Your task to perform on an android device: Add asus zenbook to the cart on costco Image 0: 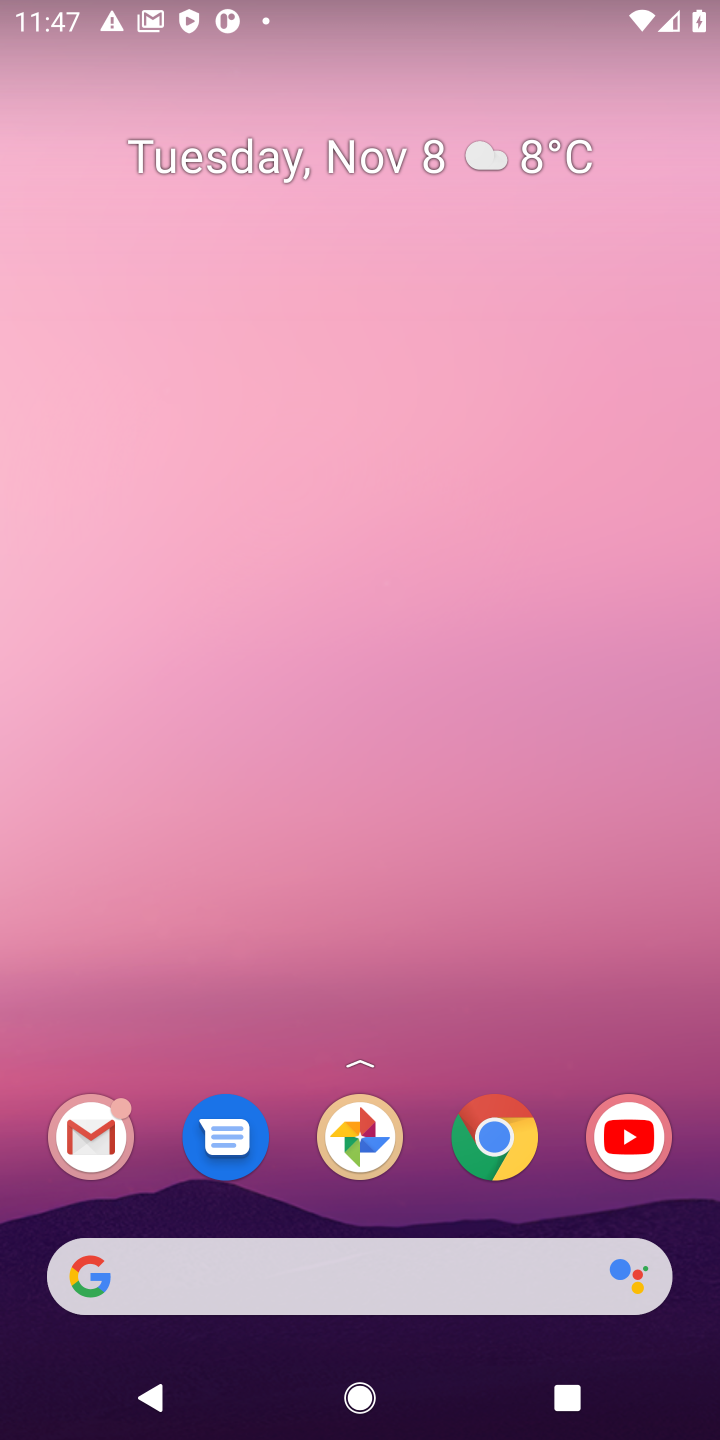
Step 0: click (495, 1136)
Your task to perform on an android device: Add asus zenbook to the cart on costco Image 1: 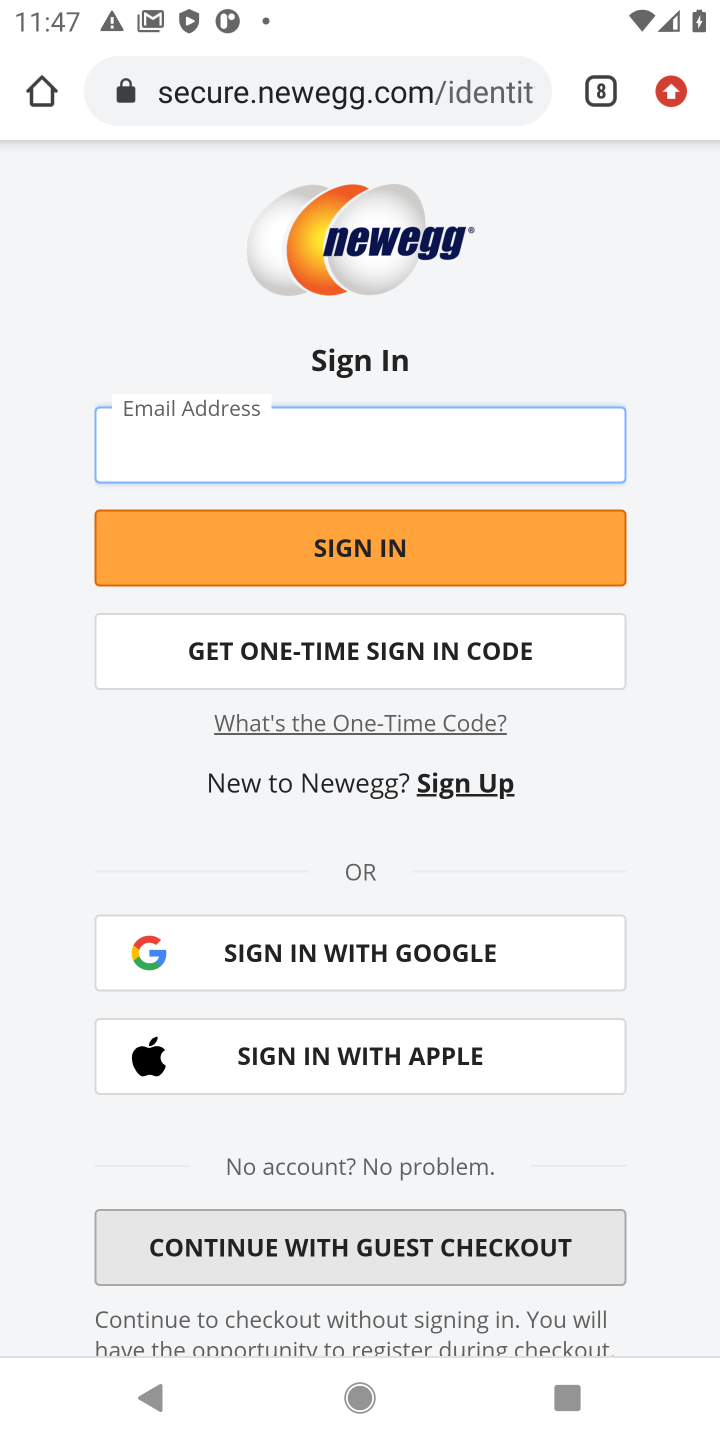
Step 1: click (594, 96)
Your task to perform on an android device: Add asus zenbook to the cart on costco Image 2: 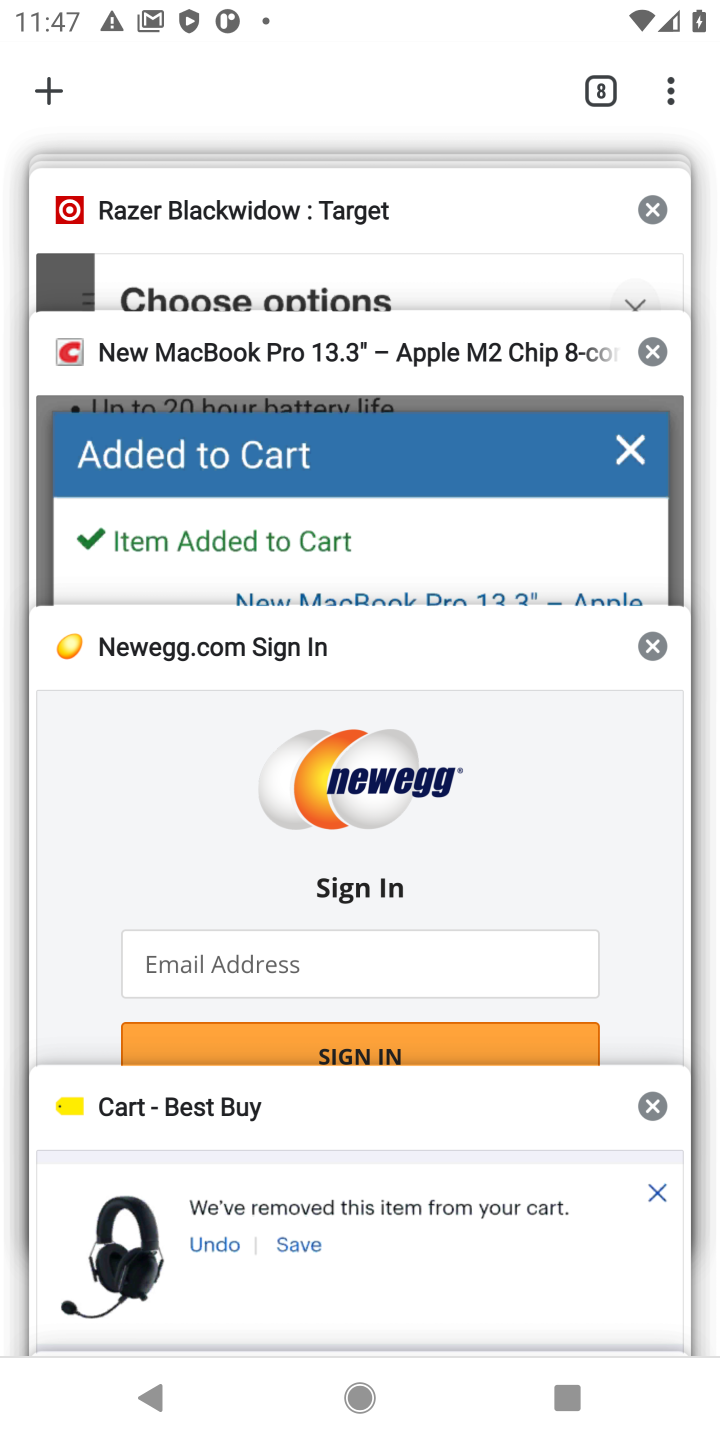
Step 2: click (339, 399)
Your task to perform on an android device: Add asus zenbook to the cart on costco Image 3: 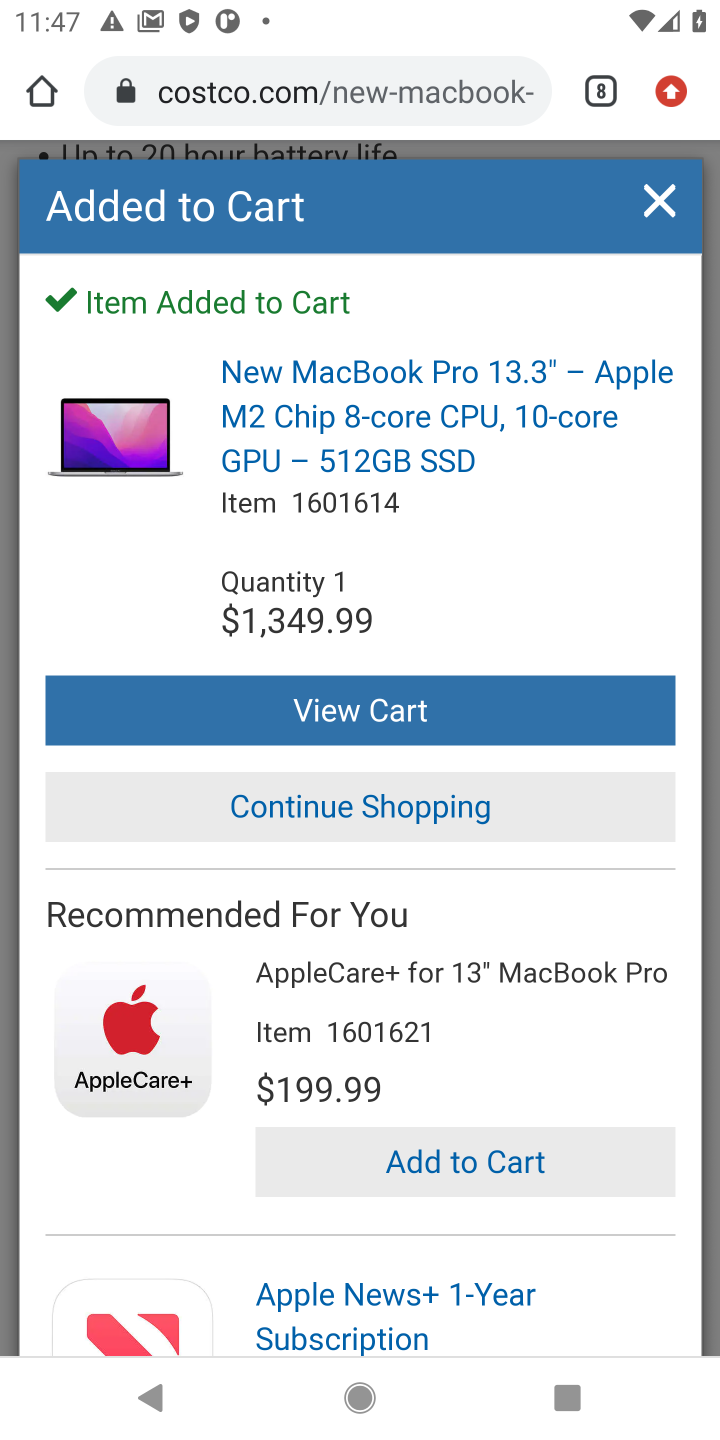
Step 3: click (656, 214)
Your task to perform on an android device: Add asus zenbook to the cart on costco Image 4: 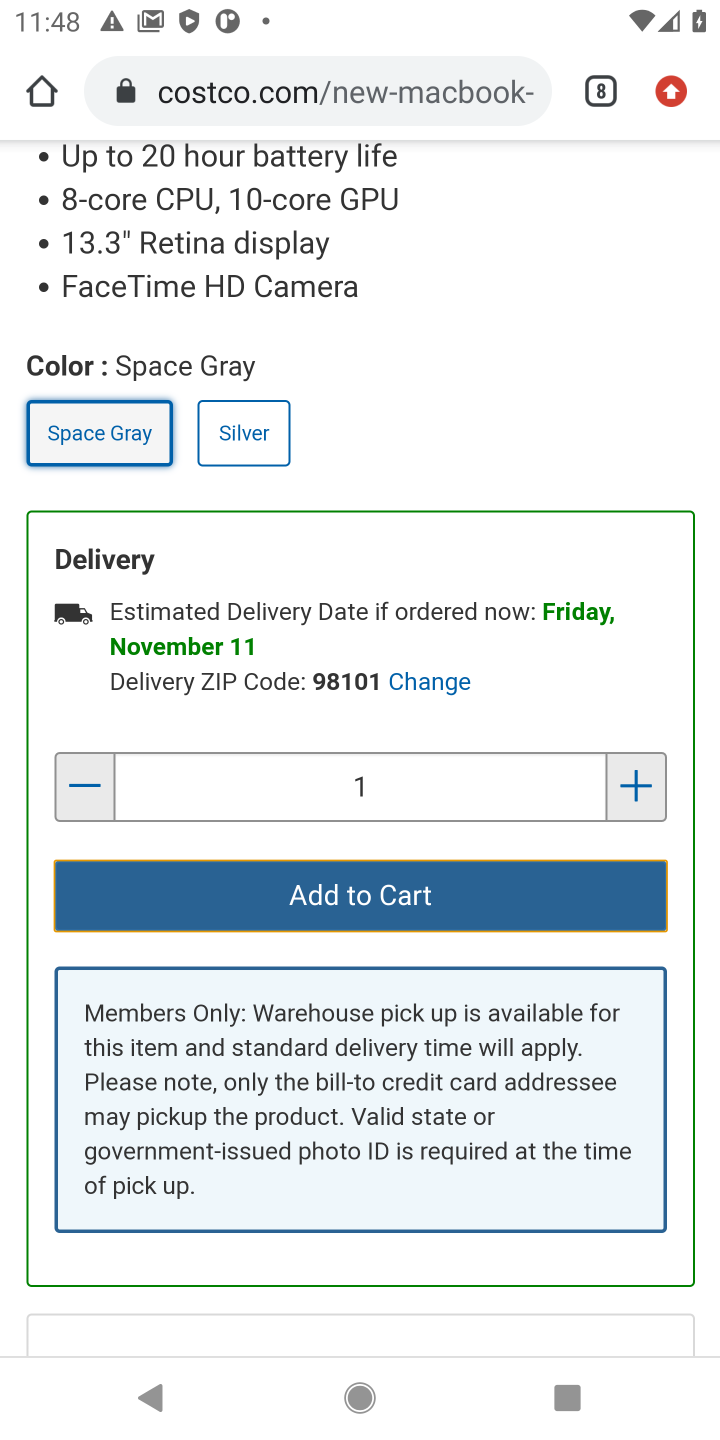
Step 4: drag from (614, 344) to (456, 768)
Your task to perform on an android device: Add asus zenbook to the cart on costco Image 5: 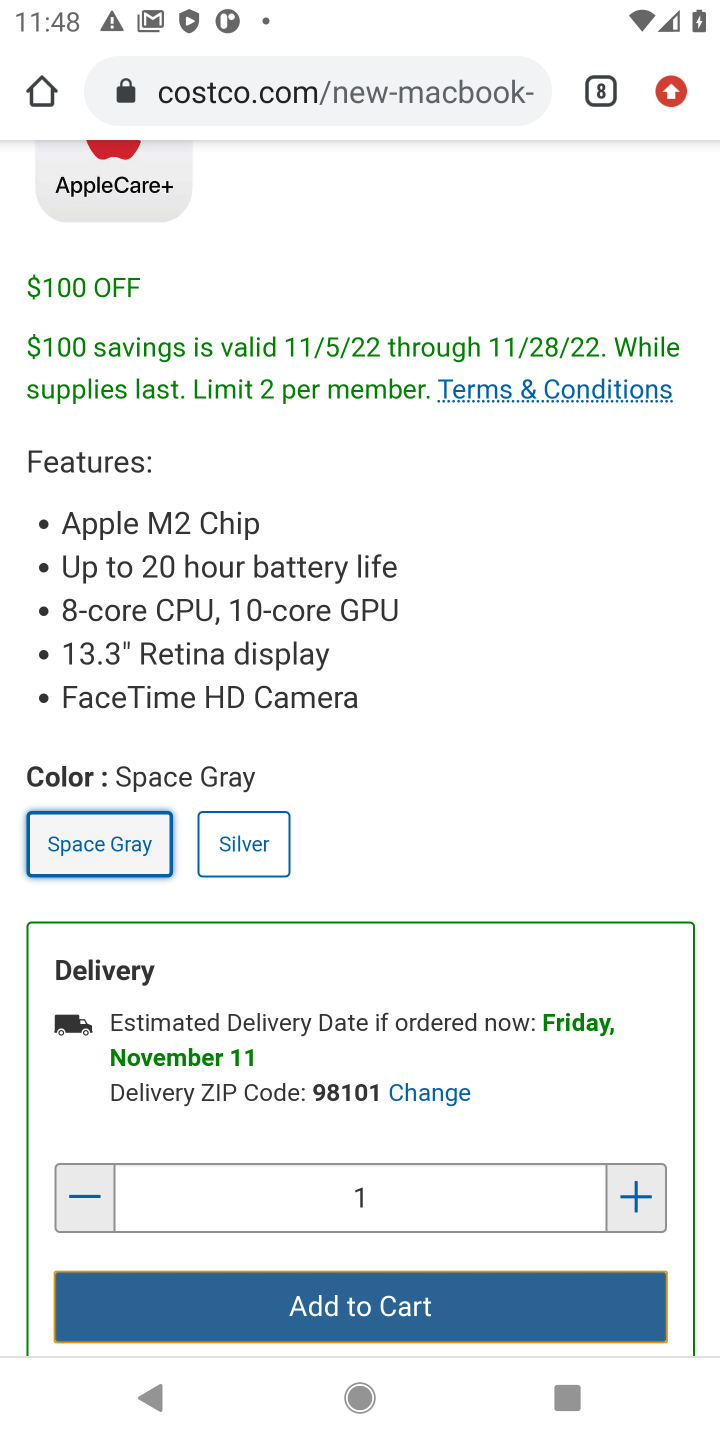
Step 5: drag from (519, 264) to (428, 728)
Your task to perform on an android device: Add asus zenbook to the cart on costco Image 6: 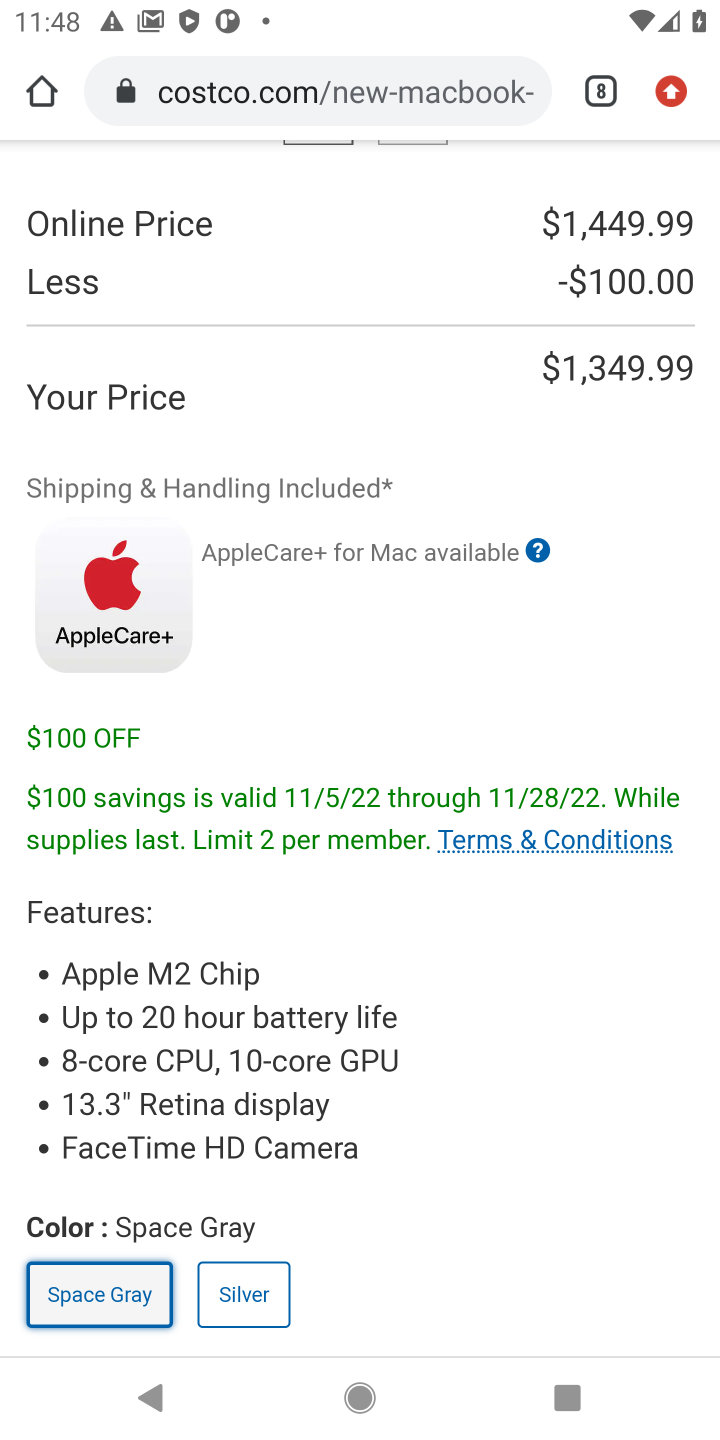
Step 6: drag from (375, 337) to (212, 1037)
Your task to perform on an android device: Add asus zenbook to the cart on costco Image 7: 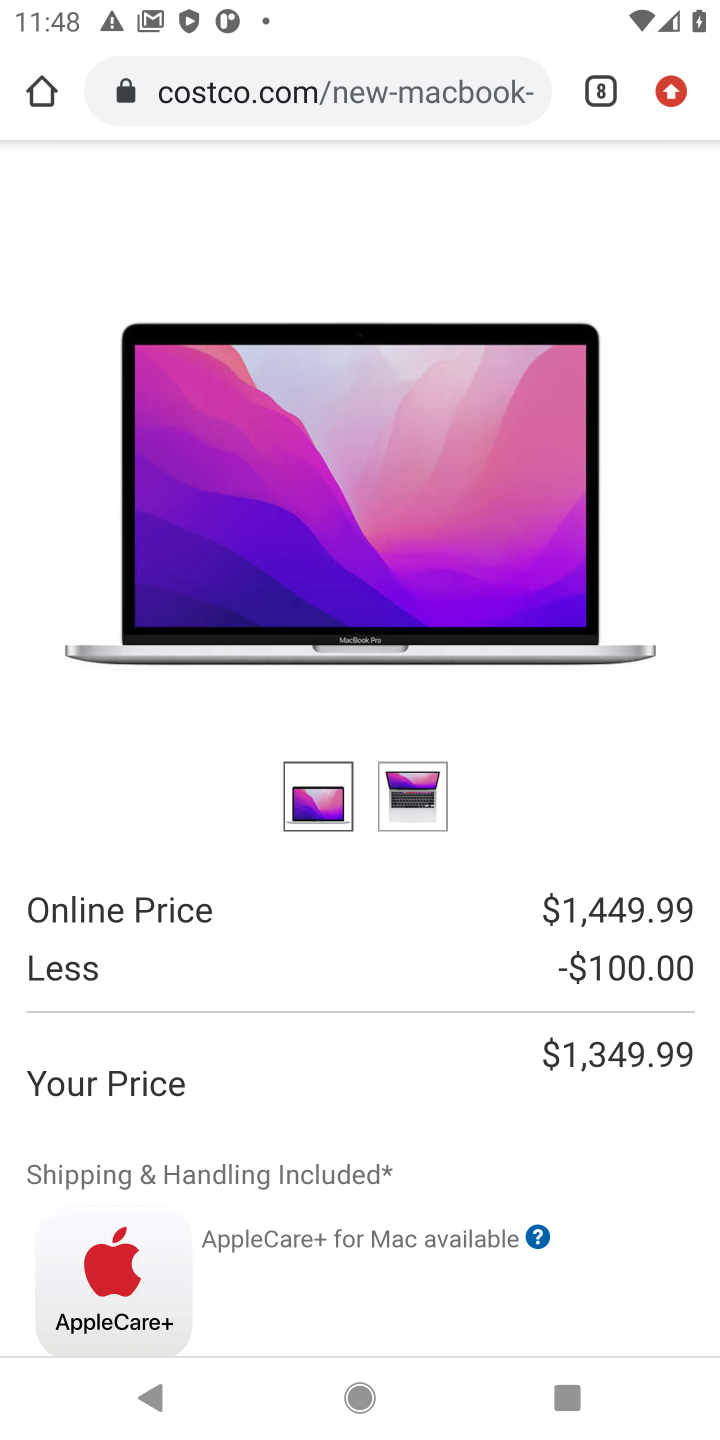
Step 7: drag from (598, 175) to (373, 727)
Your task to perform on an android device: Add asus zenbook to the cart on costco Image 8: 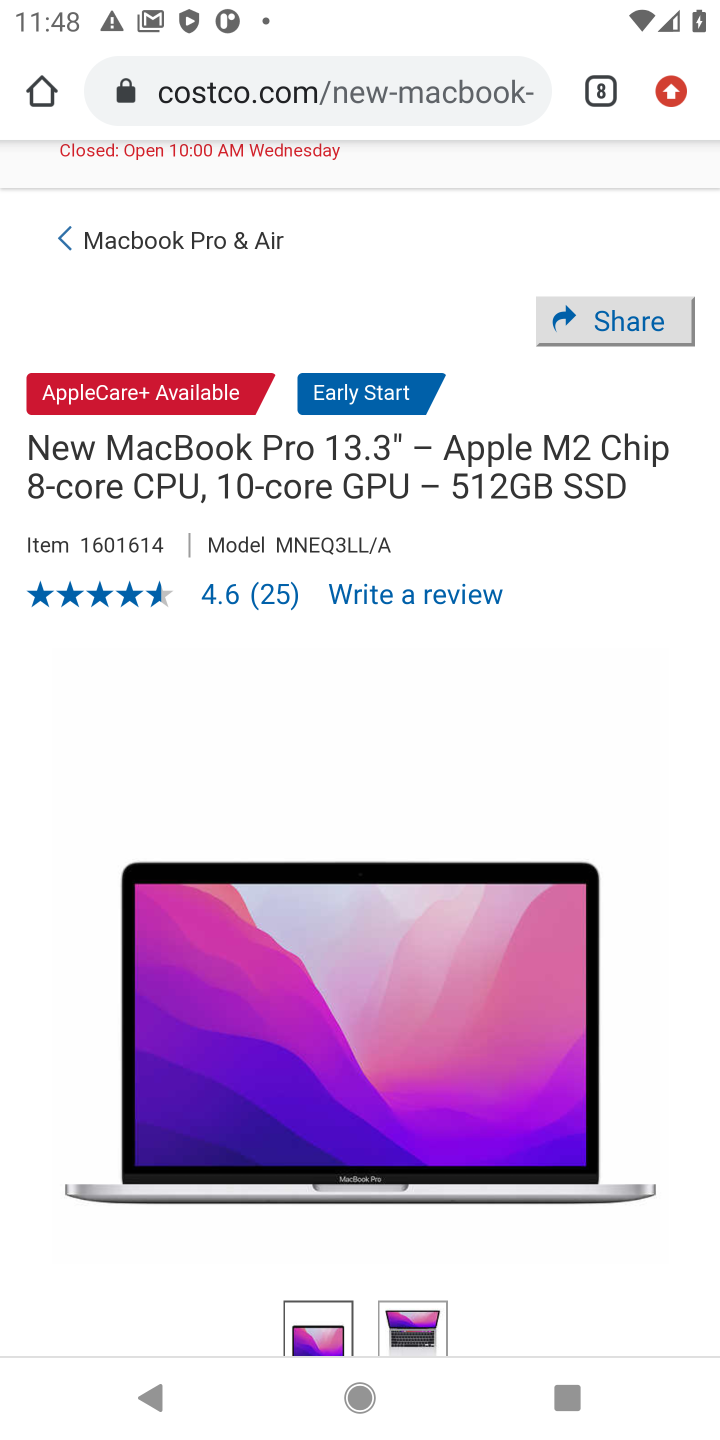
Step 8: drag from (422, 287) to (327, 843)
Your task to perform on an android device: Add asus zenbook to the cart on costco Image 9: 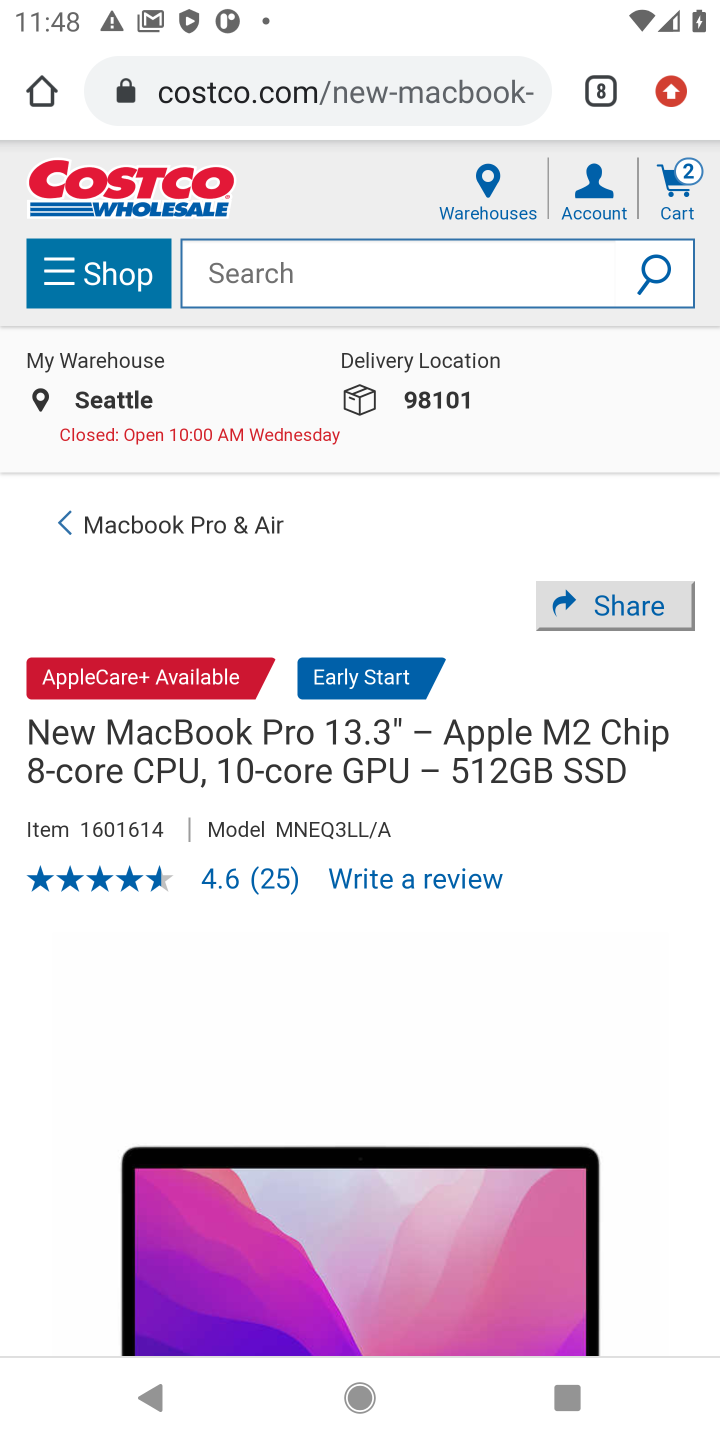
Step 9: click (314, 276)
Your task to perform on an android device: Add asus zenbook to the cart on costco Image 10: 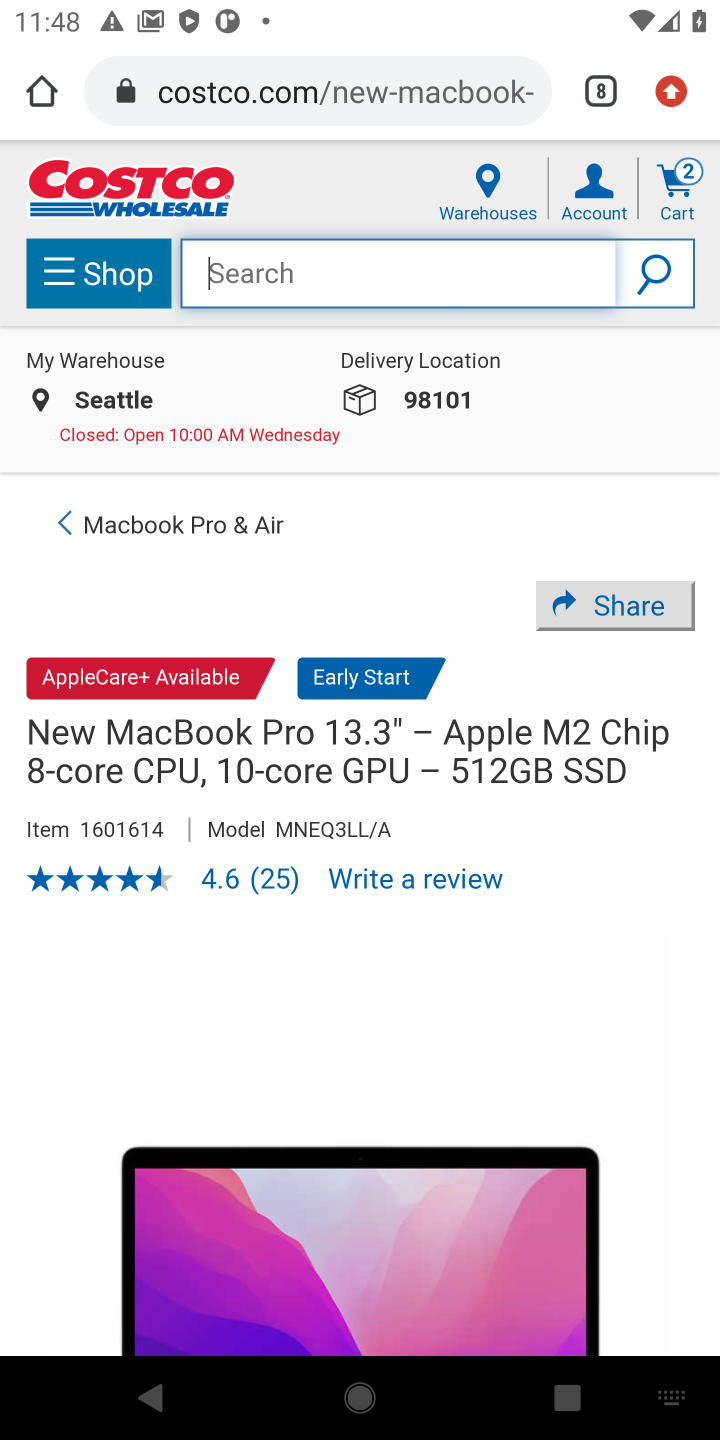
Step 10: type "asus zenbook"
Your task to perform on an android device: Add asus zenbook to the cart on costco Image 11: 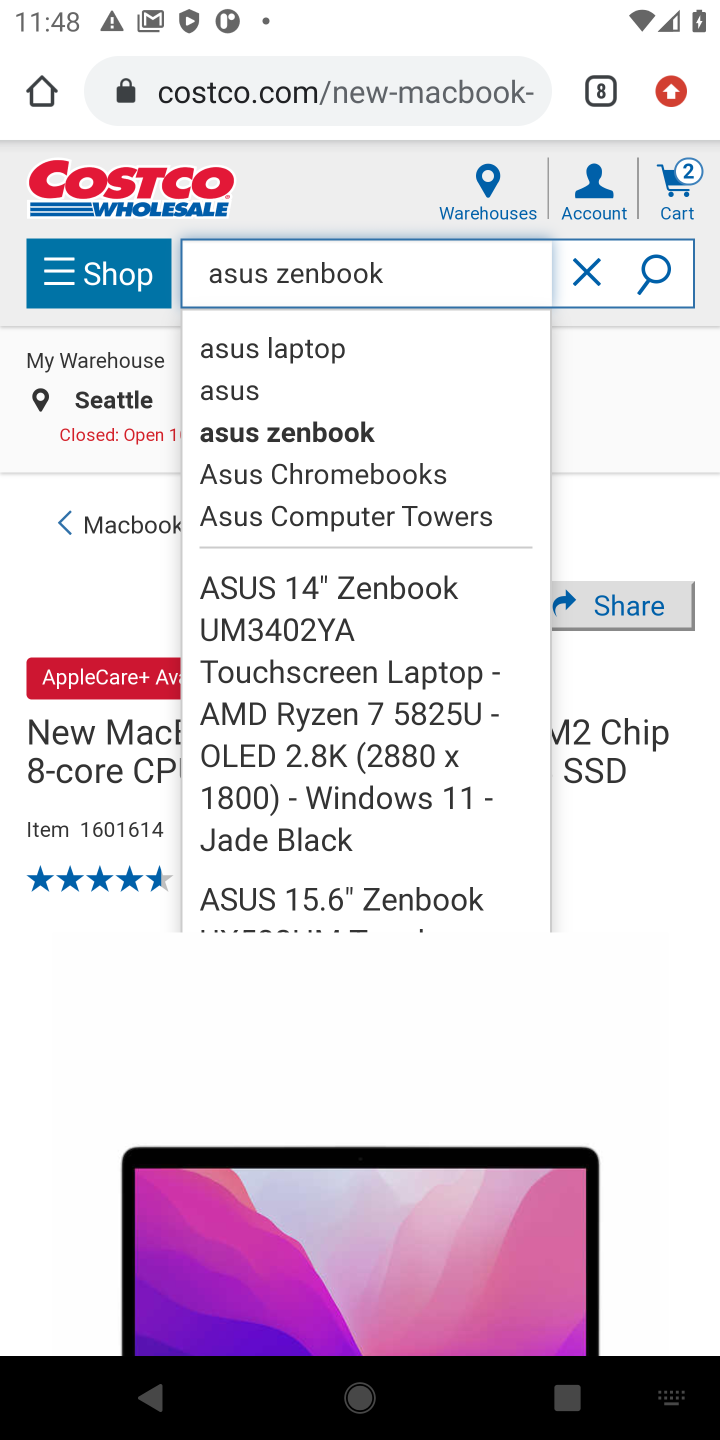
Step 11: click (331, 433)
Your task to perform on an android device: Add asus zenbook to the cart on costco Image 12: 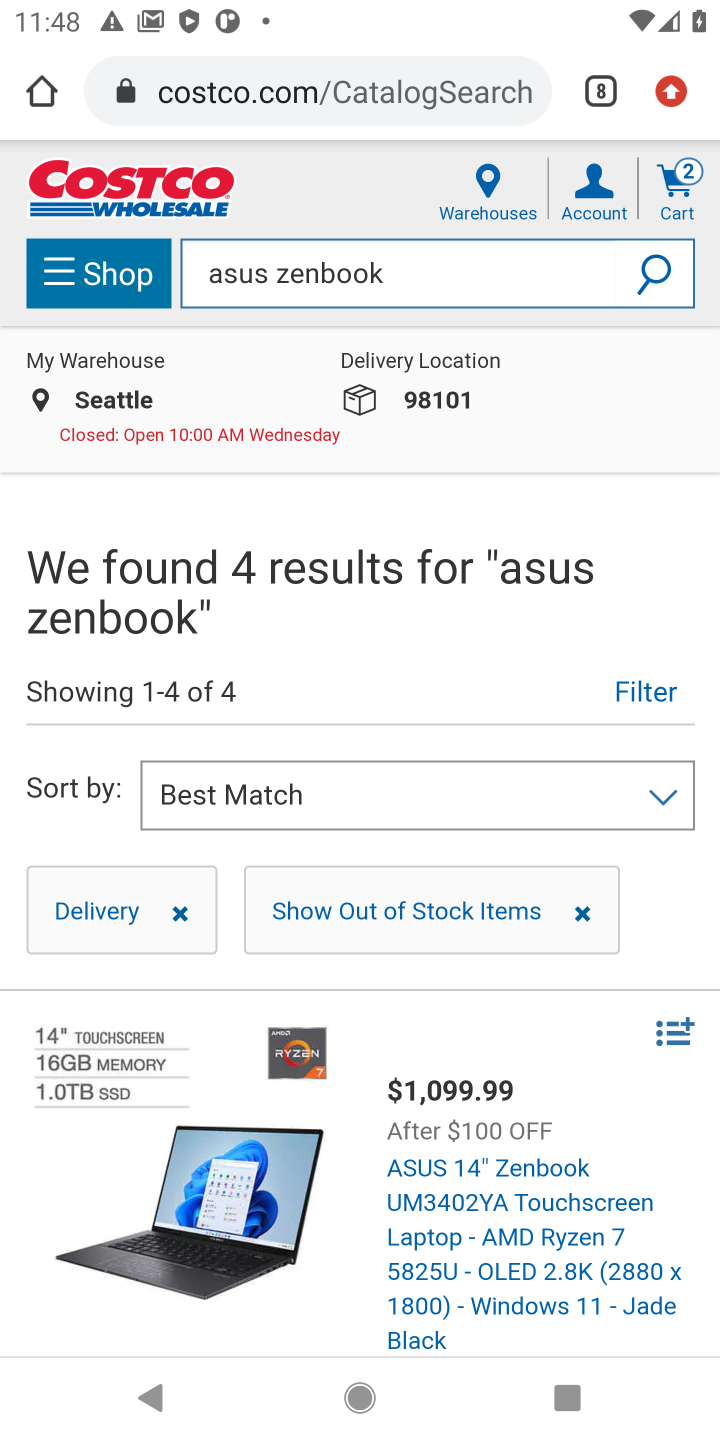
Step 12: click (541, 1225)
Your task to perform on an android device: Add asus zenbook to the cart on costco Image 13: 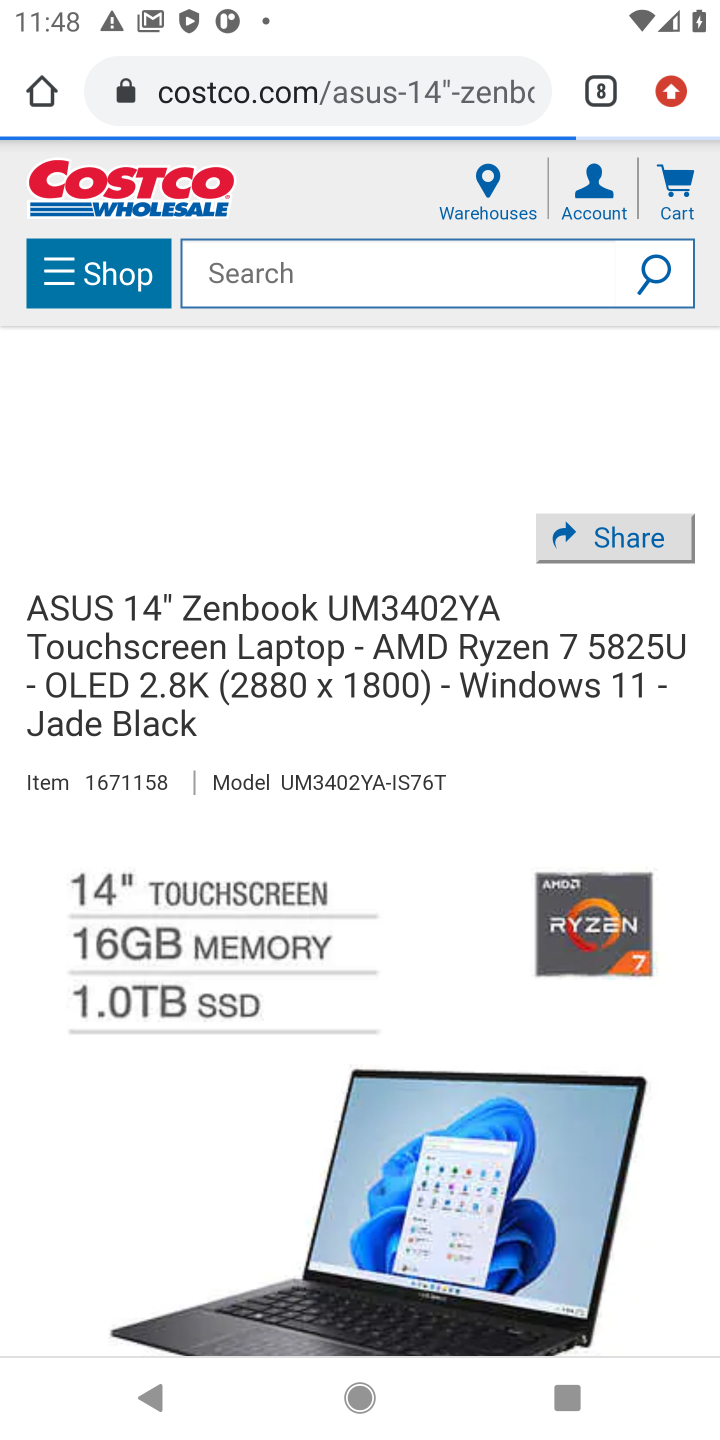
Step 13: drag from (662, 1289) to (612, 868)
Your task to perform on an android device: Add asus zenbook to the cart on costco Image 14: 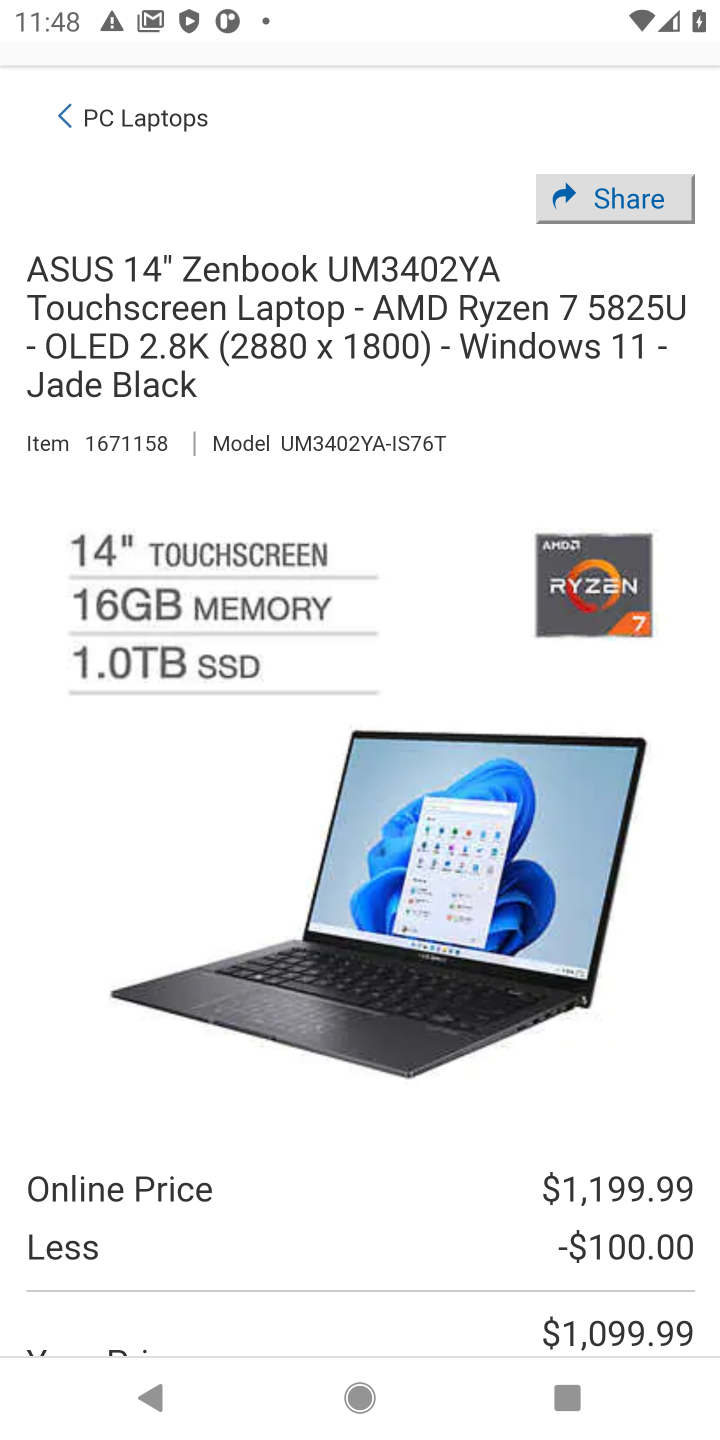
Step 14: drag from (434, 1226) to (390, 721)
Your task to perform on an android device: Add asus zenbook to the cart on costco Image 15: 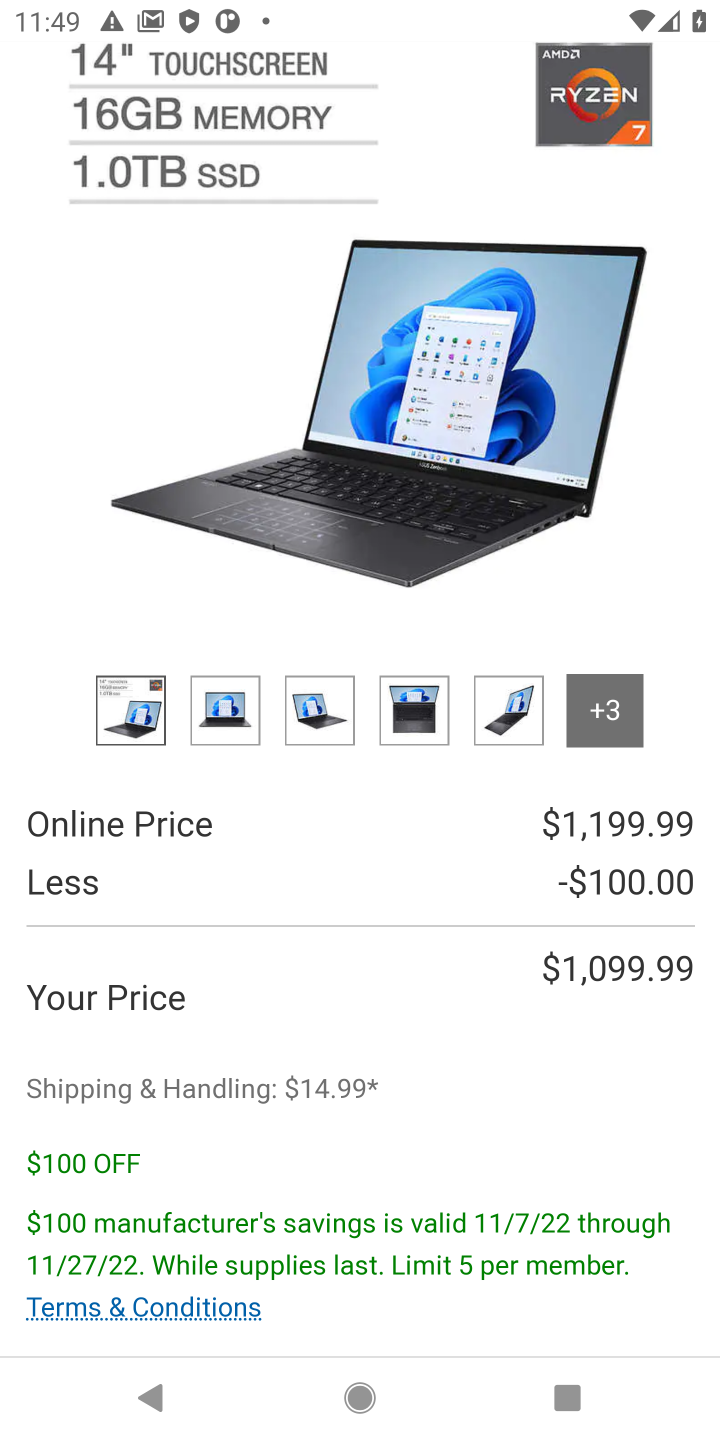
Step 15: drag from (421, 1310) to (369, 665)
Your task to perform on an android device: Add asus zenbook to the cart on costco Image 16: 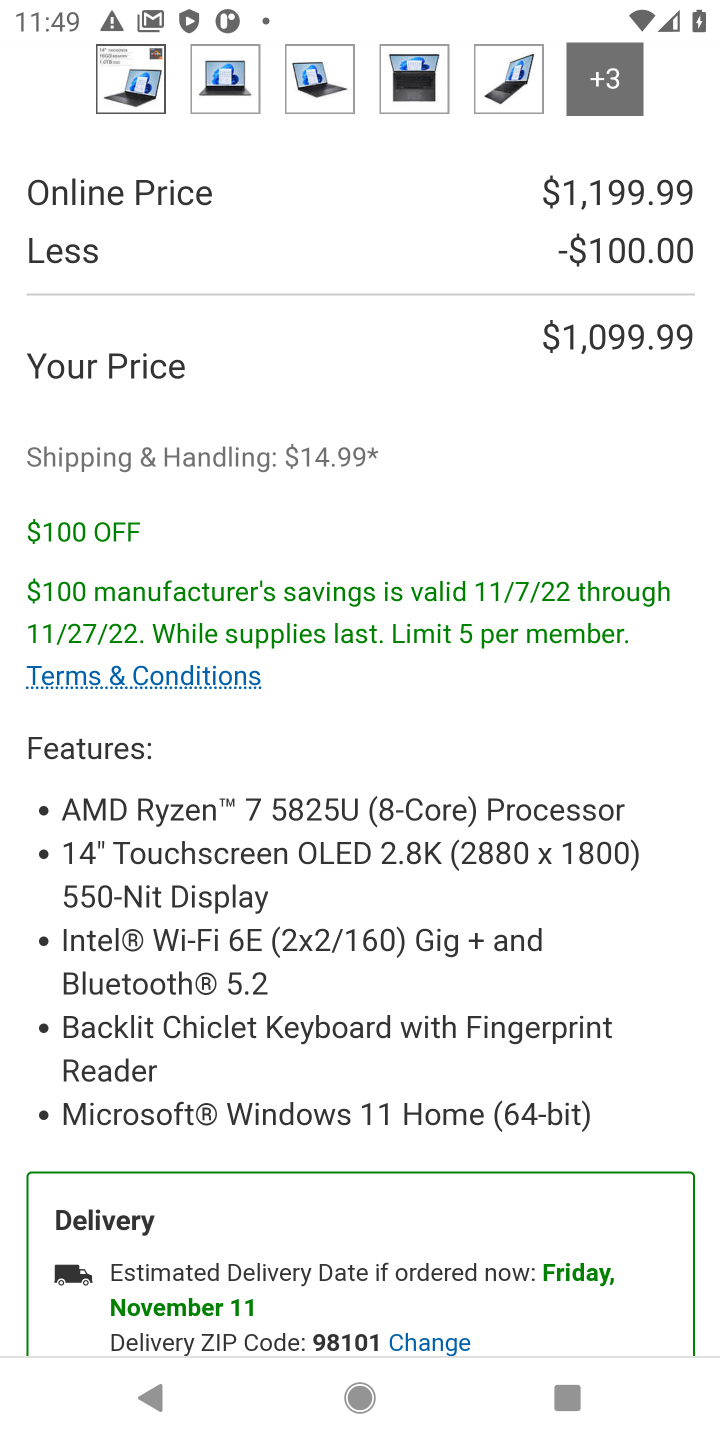
Step 16: drag from (372, 1316) to (363, 413)
Your task to perform on an android device: Add asus zenbook to the cart on costco Image 17: 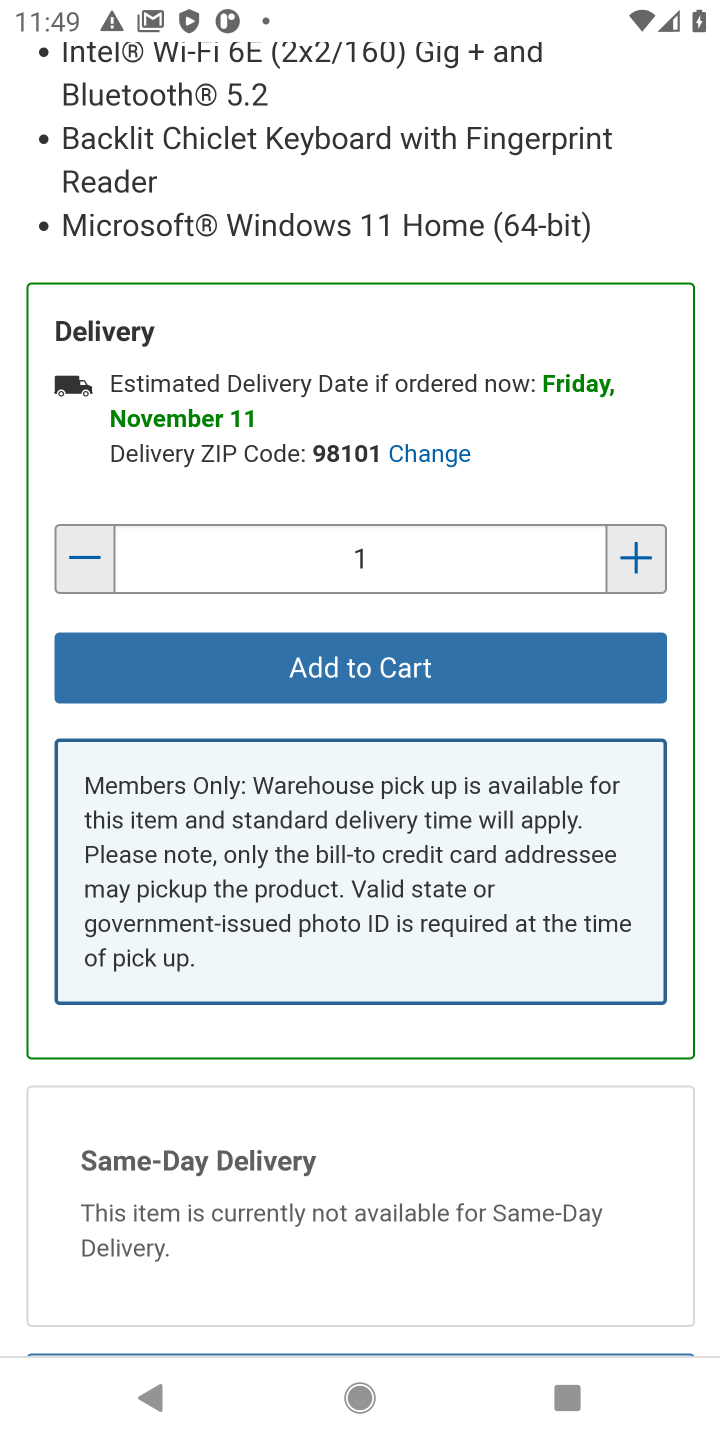
Step 17: click (360, 668)
Your task to perform on an android device: Add asus zenbook to the cart on costco Image 18: 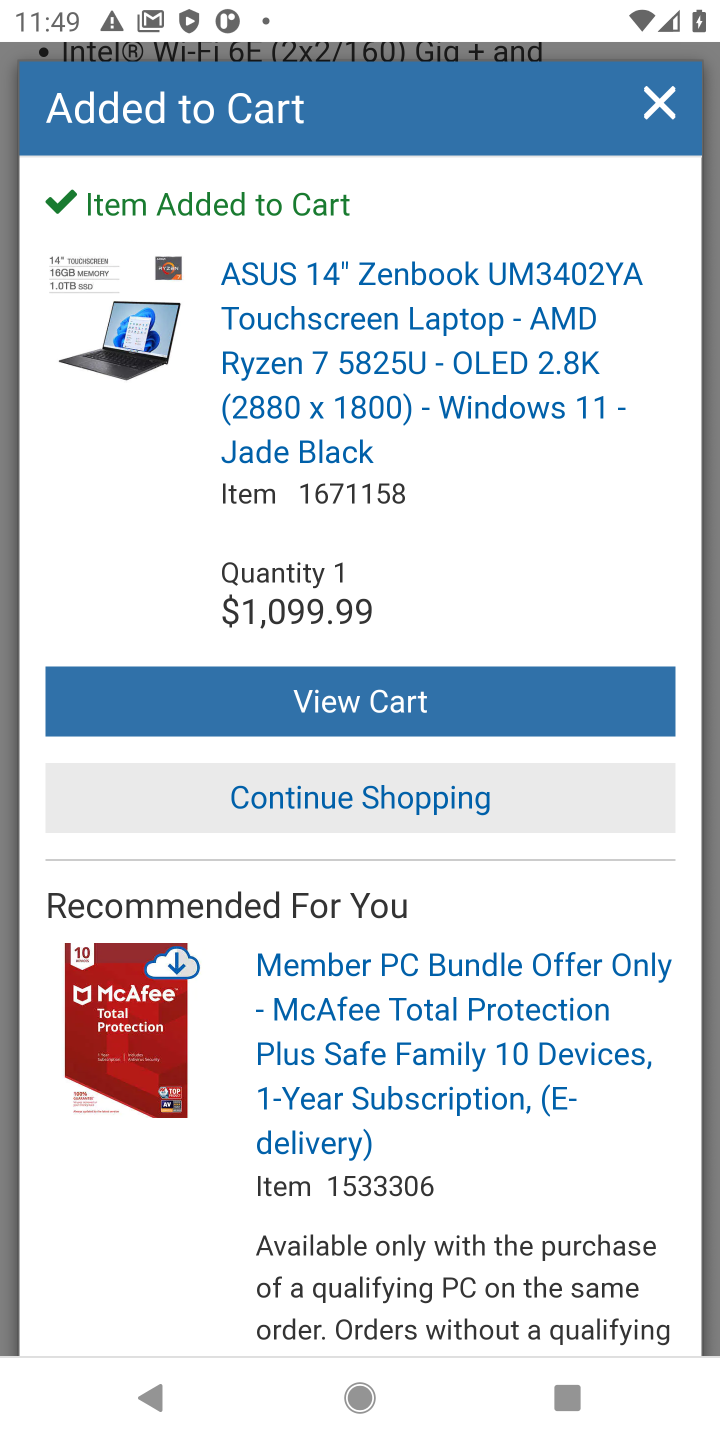
Step 18: task complete